Your task to perform on an android device: delete a single message in the gmail app Image 0: 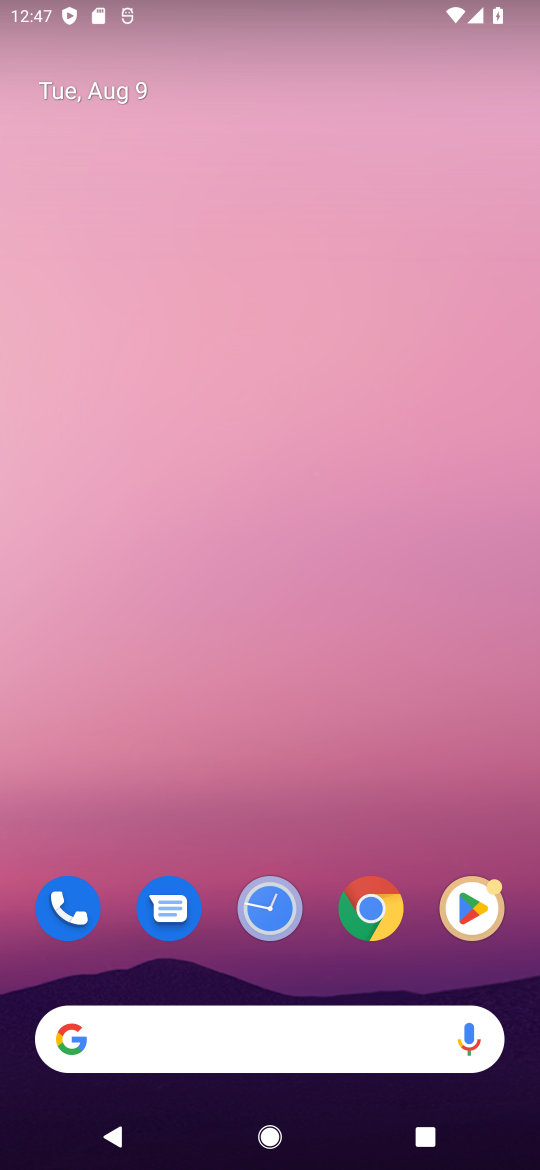
Step 0: drag from (296, 859) to (299, 369)
Your task to perform on an android device: delete a single message in the gmail app Image 1: 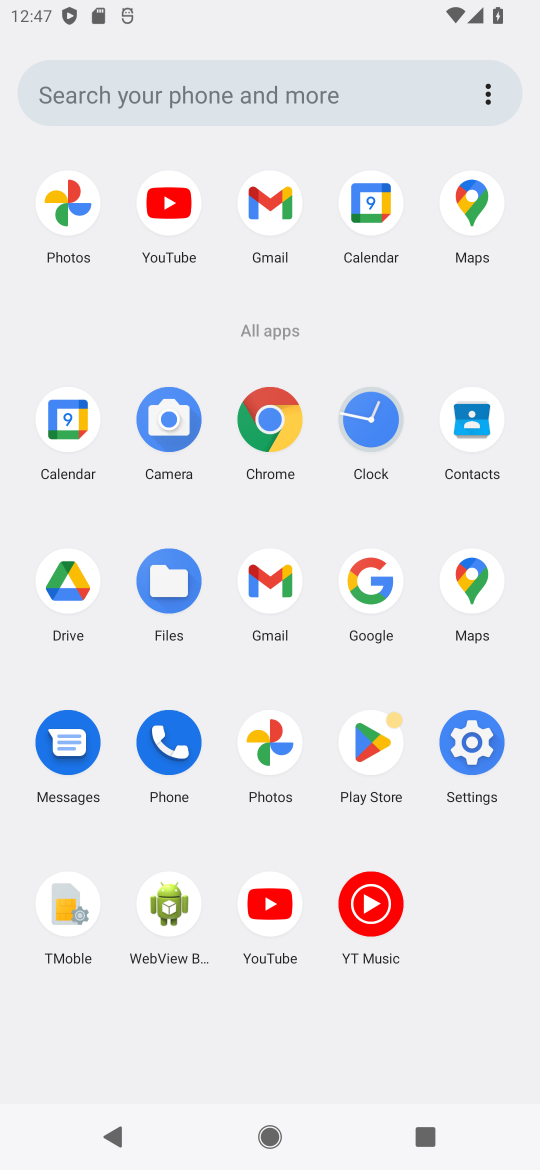
Step 1: click (274, 601)
Your task to perform on an android device: delete a single message in the gmail app Image 2: 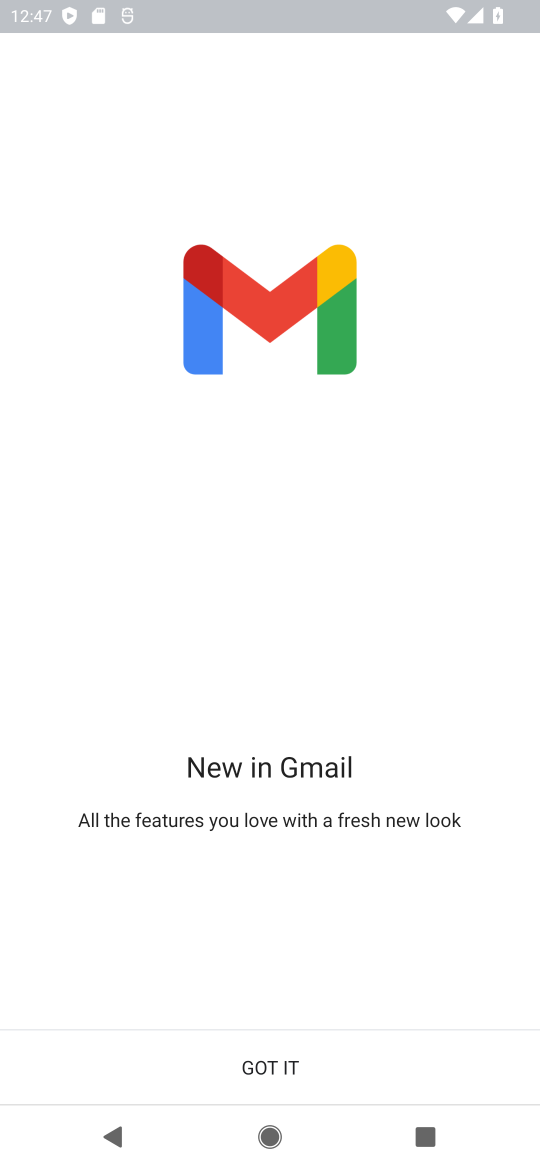
Step 2: click (249, 1043)
Your task to perform on an android device: delete a single message in the gmail app Image 3: 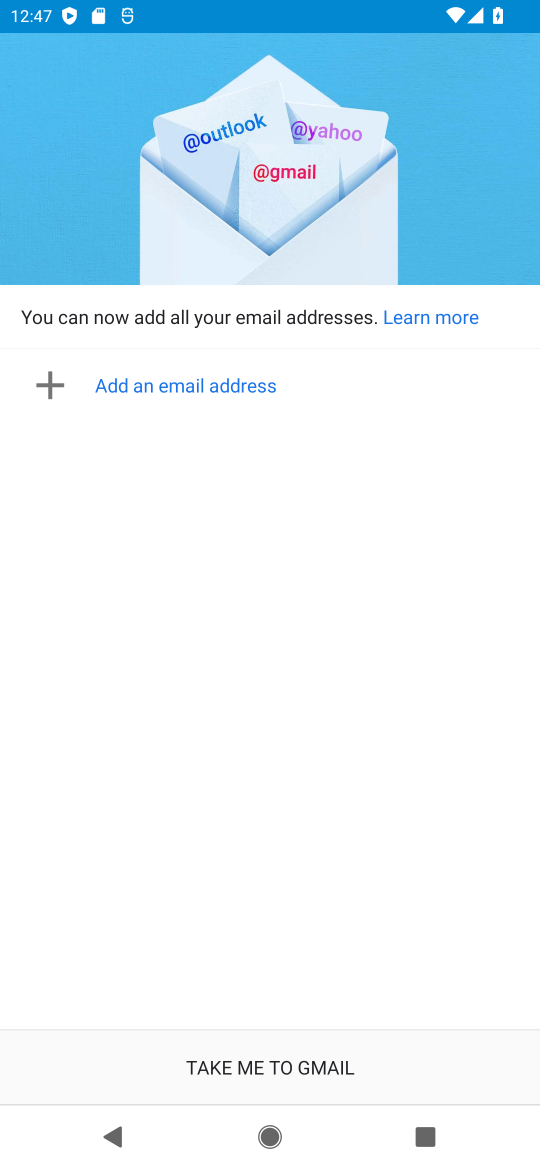
Step 3: click (256, 1043)
Your task to perform on an android device: delete a single message in the gmail app Image 4: 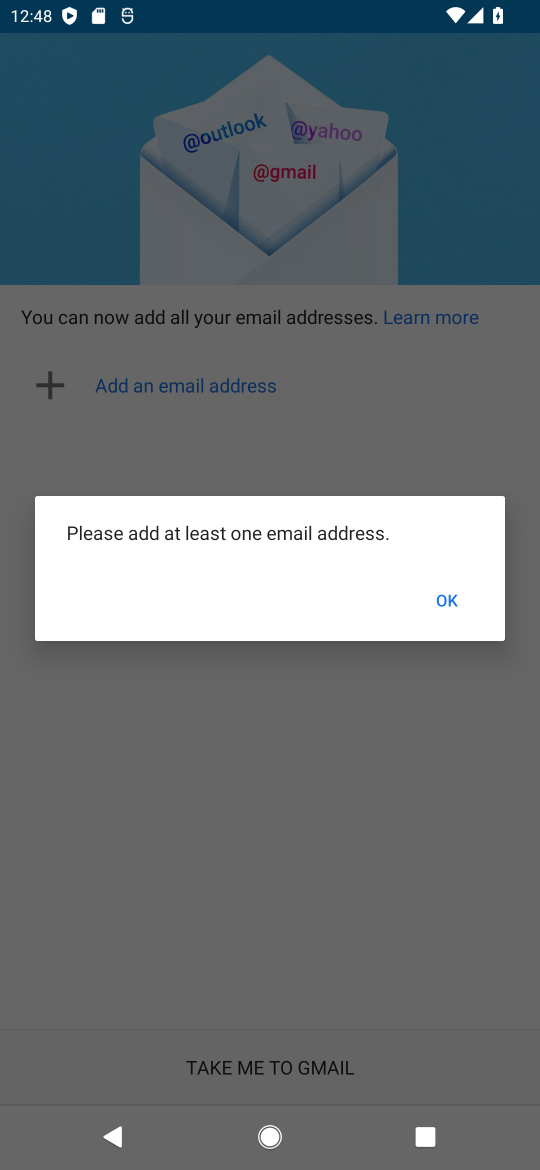
Step 4: click (449, 602)
Your task to perform on an android device: delete a single message in the gmail app Image 5: 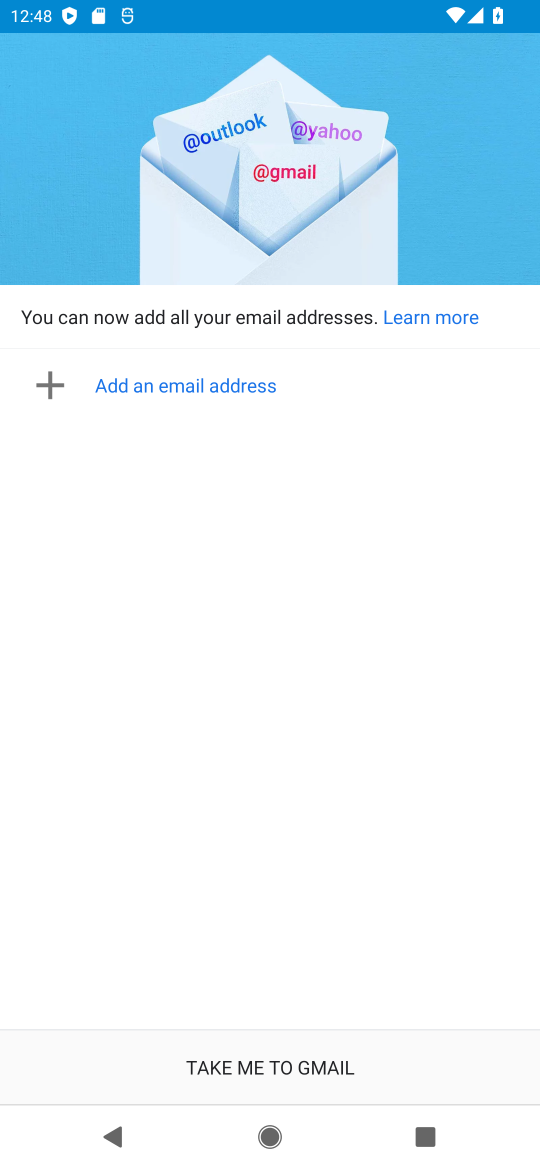
Step 5: task complete